Your task to perform on an android device: Open privacy settings Image 0: 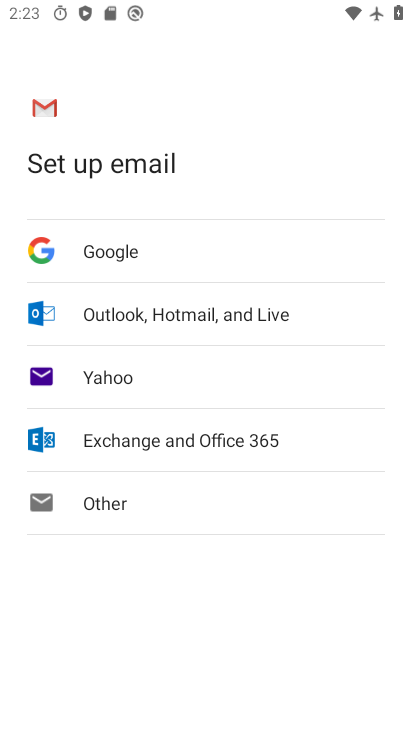
Step 0: press home button
Your task to perform on an android device: Open privacy settings Image 1: 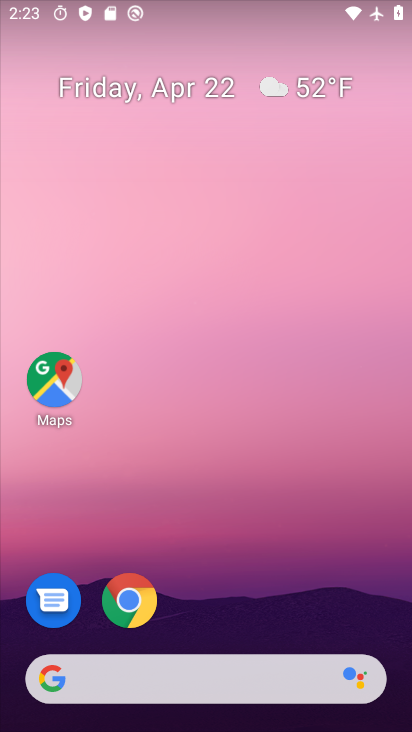
Step 1: drag from (208, 595) to (199, 156)
Your task to perform on an android device: Open privacy settings Image 2: 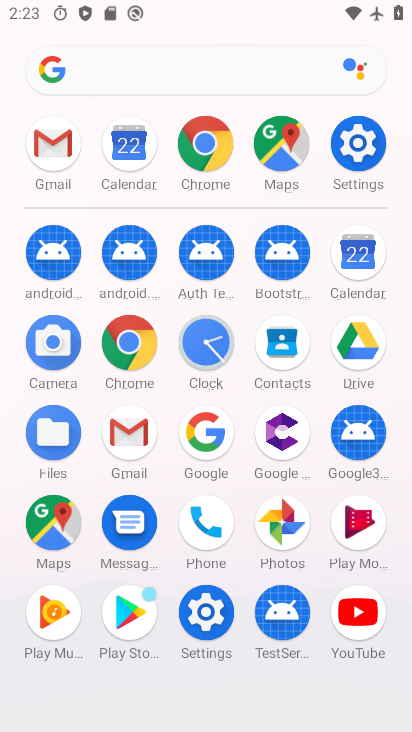
Step 2: click (360, 141)
Your task to perform on an android device: Open privacy settings Image 3: 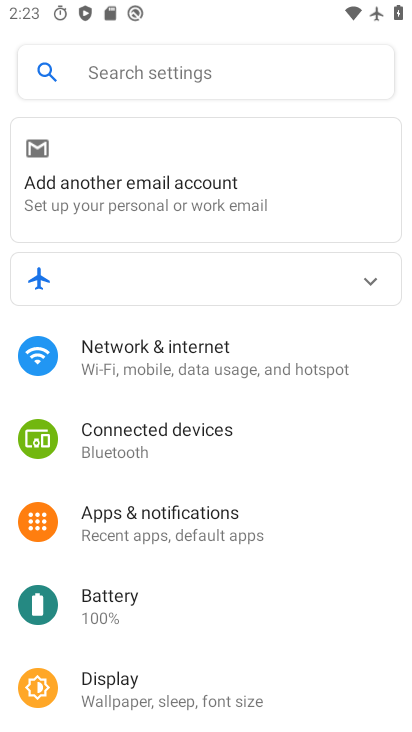
Step 3: drag from (145, 666) to (132, 359)
Your task to perform on an android device: Open privacy settings Image 4: 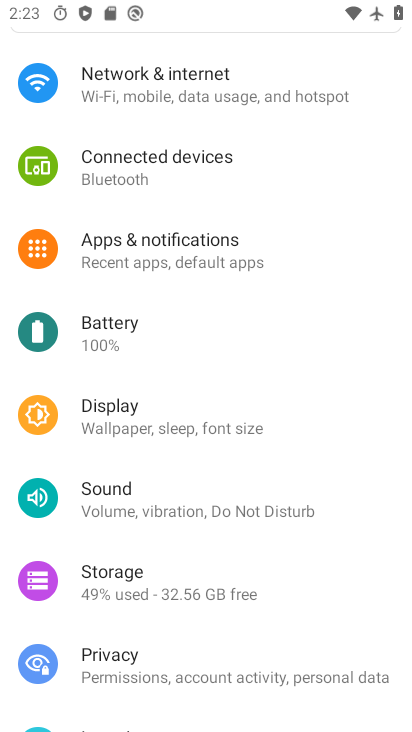
Step 4: click (119, 660)
Your task to perform on an android device: Open privacy settings Image 5: 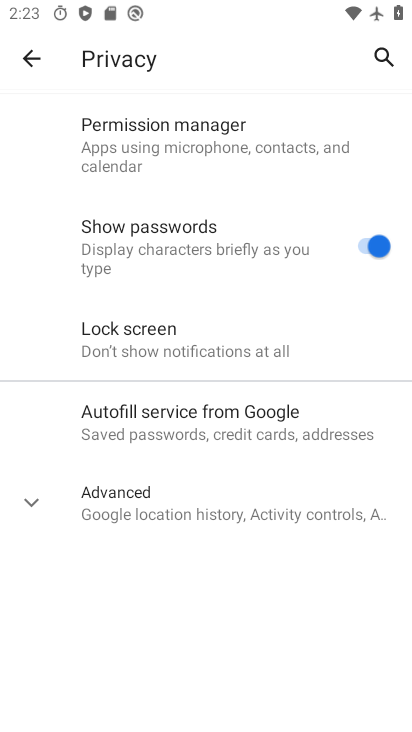
Step 5: task complete